Your task to perform on an android device: Is it going to rain today? Image 0: 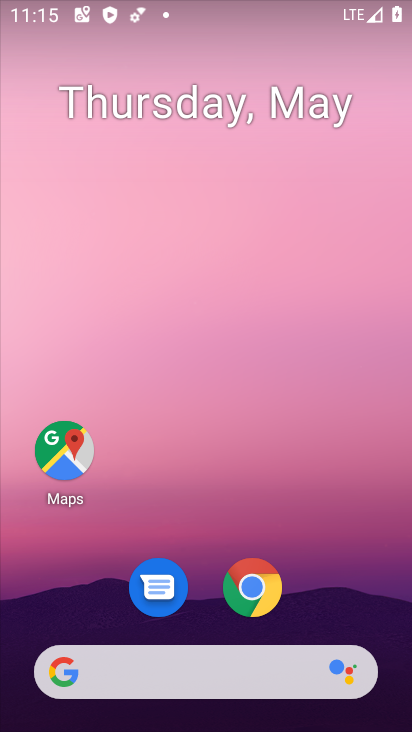
Step 0: drag from (4, 309) to (381, 215)
Your task to perform on an android device: Is it going to rain today? Image 1: 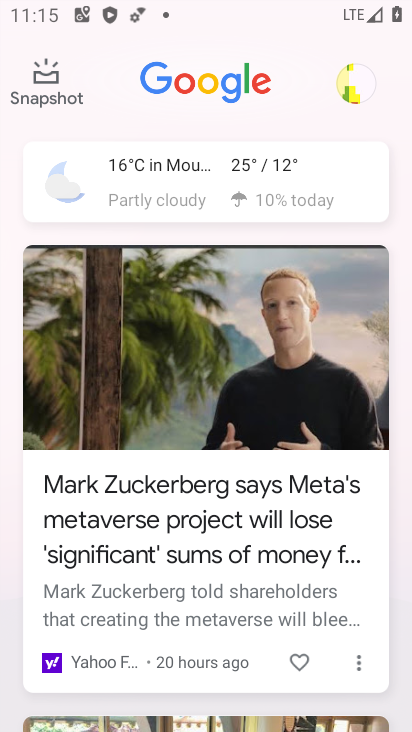
Step 1: click (222, 184)
Your task to perform on an android device: Is it going to rain today? Image 2: 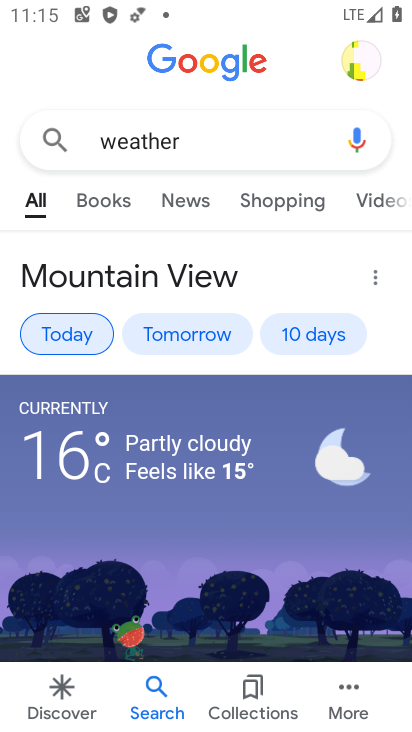
Step 2: click (194, 553)
Your task to perform on an android device: Is it going to rain today? Image 3: 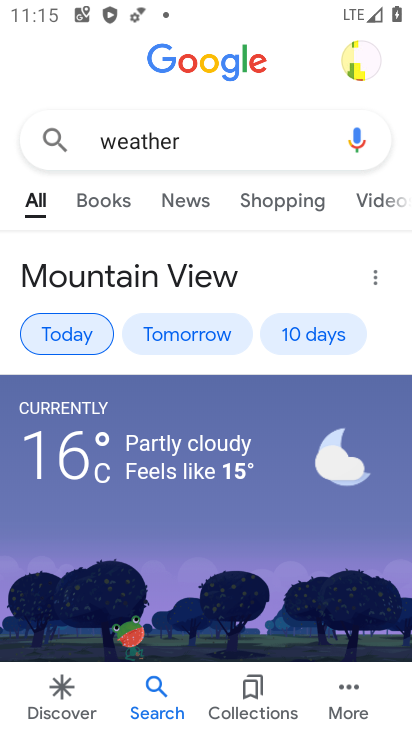
Step 3: click (280, 538)
Your task to perform on an android device: Is it going to rain today? Image 4: 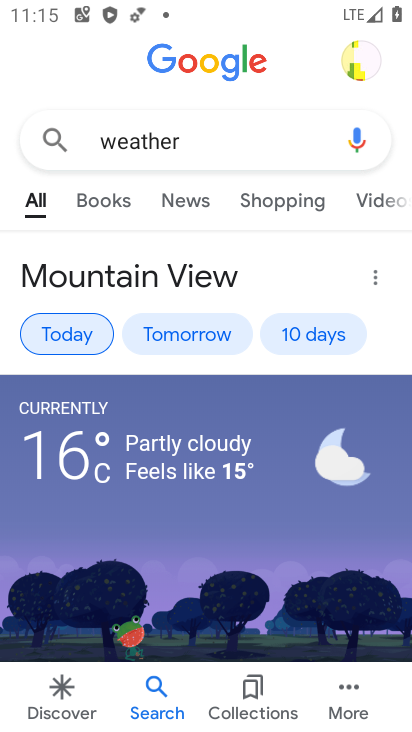
Step 4: task complete